Your task to perform on an android device: Go to Yahoo.com Image 0: 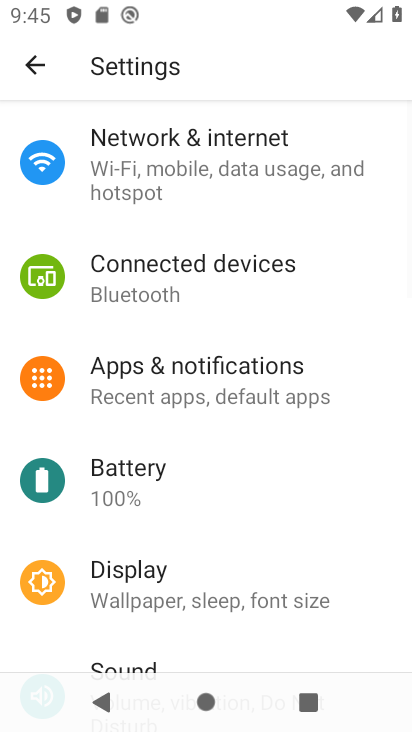
Step 0: press home button
Your task to perform on an android device: Go to Yahoo.com Image 1: 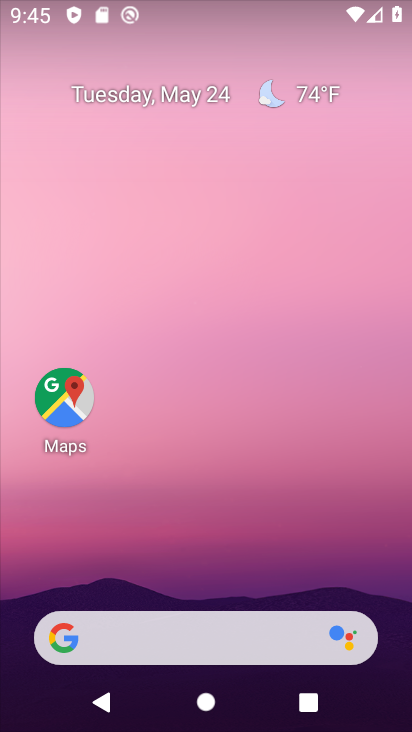
Step 1: drag from (243, 598) to (131, 75)
Your task to perform on an android device: Go to Yahoo.com Image 2: 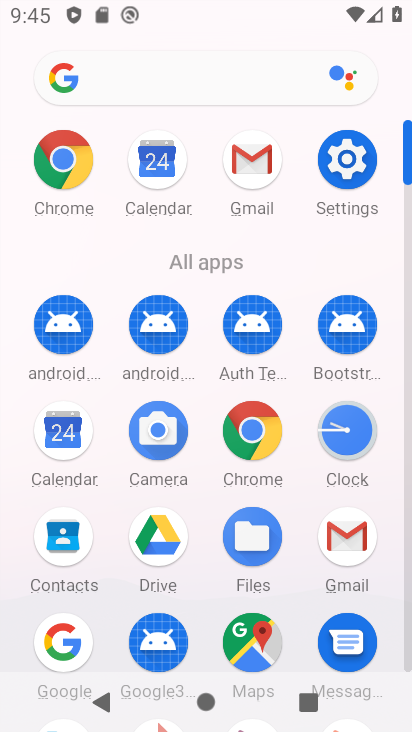
Step 2: click (248, 452)
Your task to perform on an android device: Go to Yahoo.com Image 3: 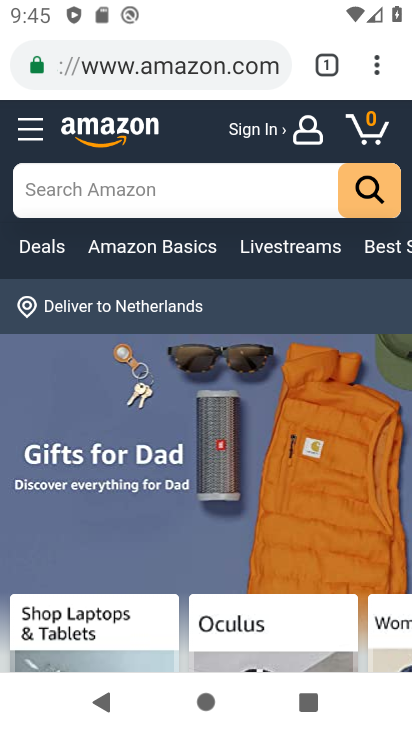
Step 3: click (324, 73)
Your task to perform on an android device: Go to Yahoo.com Image 4: 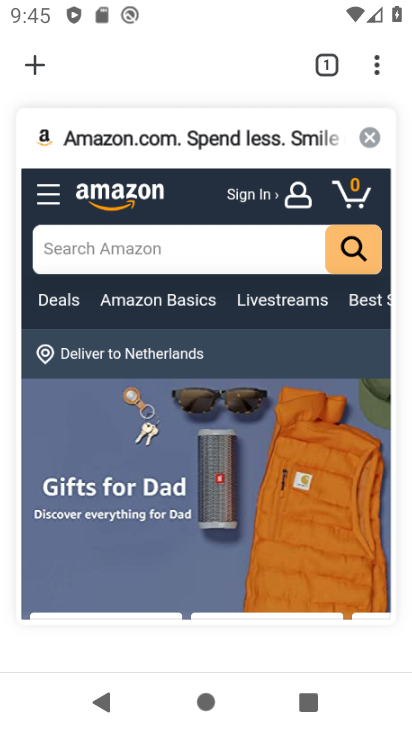
Step 4: click (32, 58)
Your task to perform on an android device: Go to Yahoo.com Image 5: 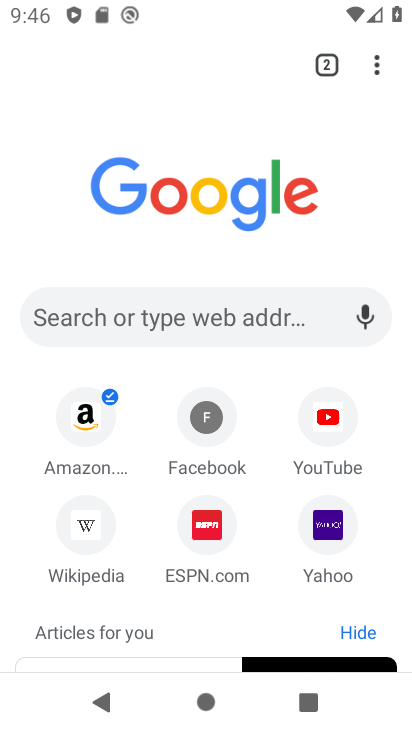
Step 5: click (337, 532)
Your task to perform on an android device: Go to Yahoo.com Image 6: 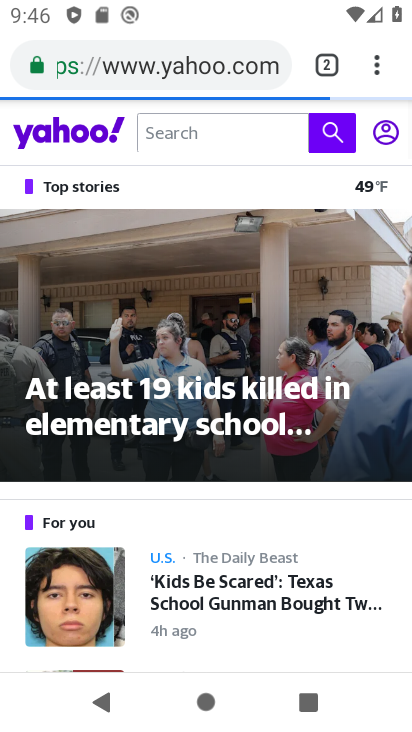
Step 6: task complete